Your task to perform on an android device: Go to location settings Image 0: 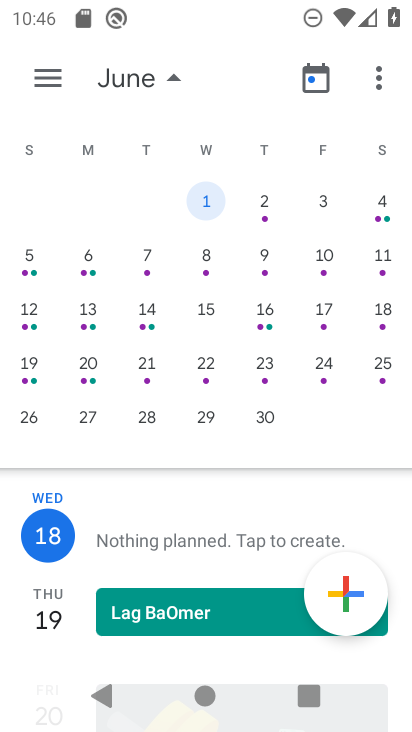
Step 0: press home button
Your task to perform on an android device: Go to location settings Image 1: 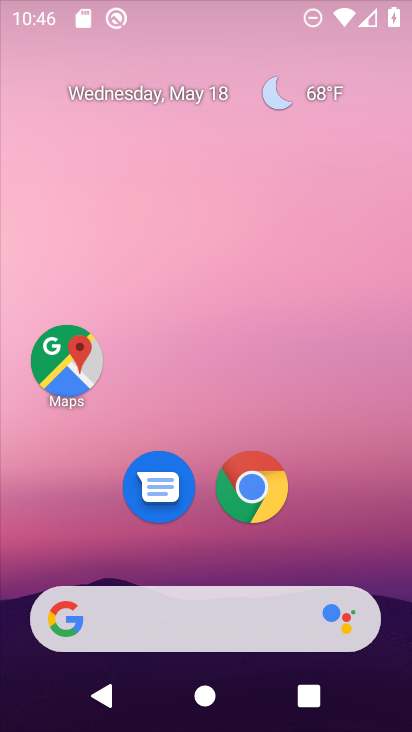
Step 1: drag from (365, 532) to (325, 178)
Your task to perform on an android device: Go to location settings Image 2: 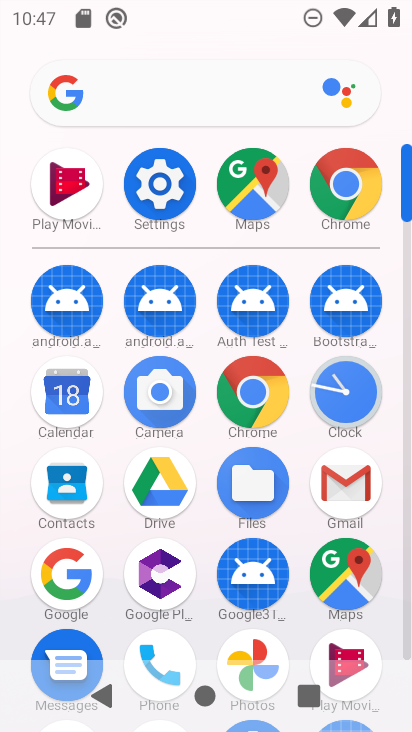
Step 2: click (142, 196)
Your task to perform on an android device: Go to location settings Image 3: 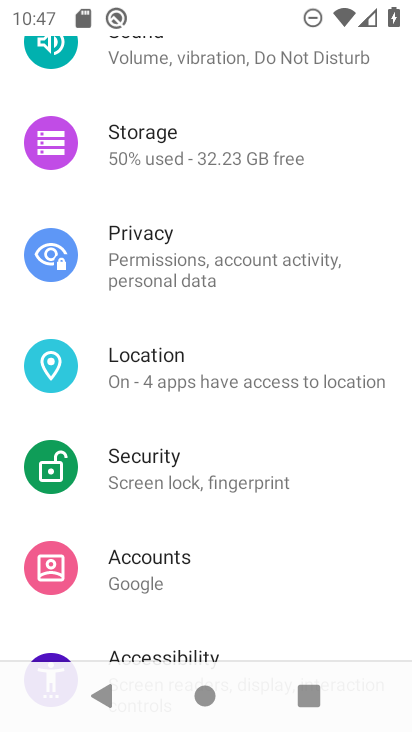
Step 3: click (248, 374)
Your task to perform on an android device: Go to location settings Image 4: 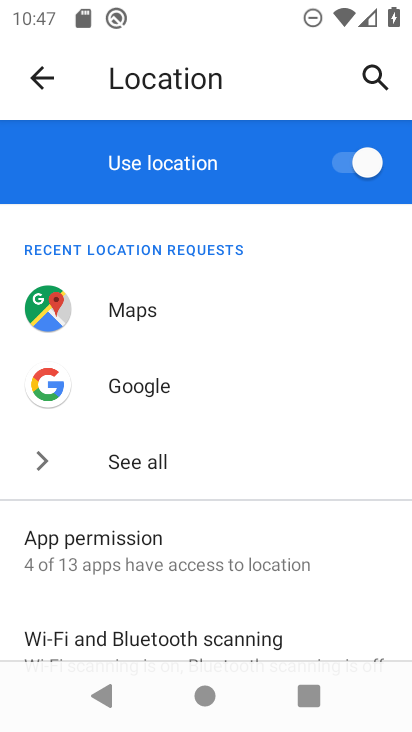
Step 4: task complete